Your task to perform on an android device: Open settings on Google Maps Image 0: 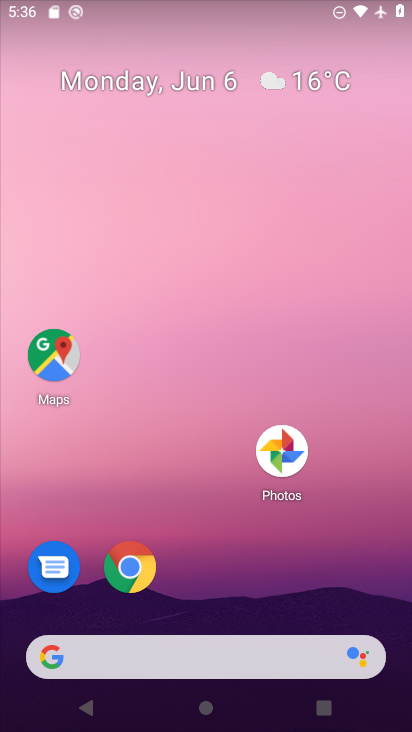
Step 0: click (194, 102)
Your task to perform on an android device: Open settings on Google Maps Image 1: 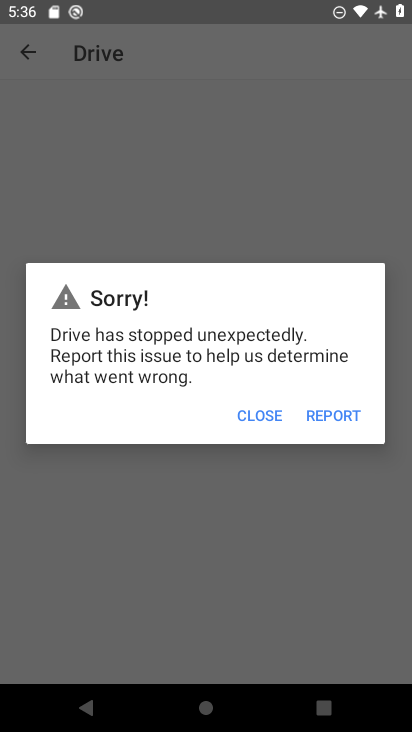
Step 1: click (258, 422)
Your task to perform on an android device: Open settings on Google Maps Image 2: 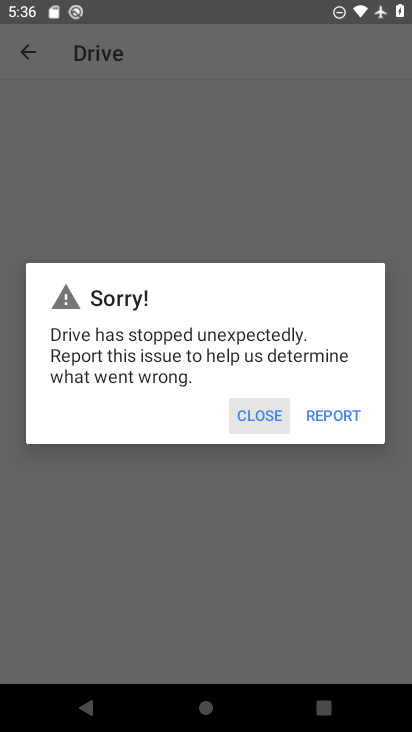
Step 2: click (259, 409)
Your task to perform on an android device: Open settings on Google Maps Image 3: 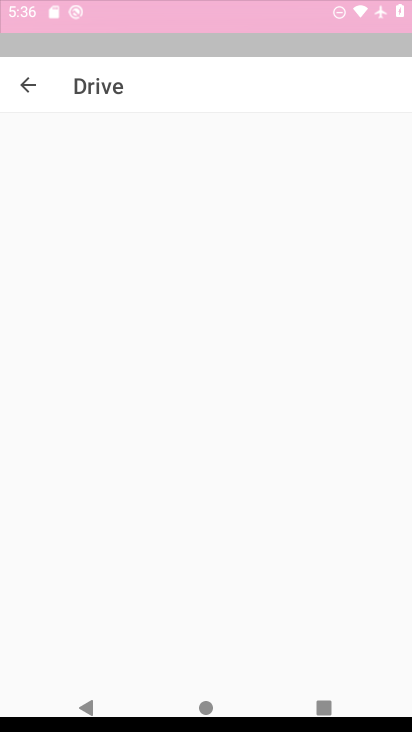
Step 3: click (261, 412)
Your task to perform on an android device: Open settings on Google Maps Image 4: 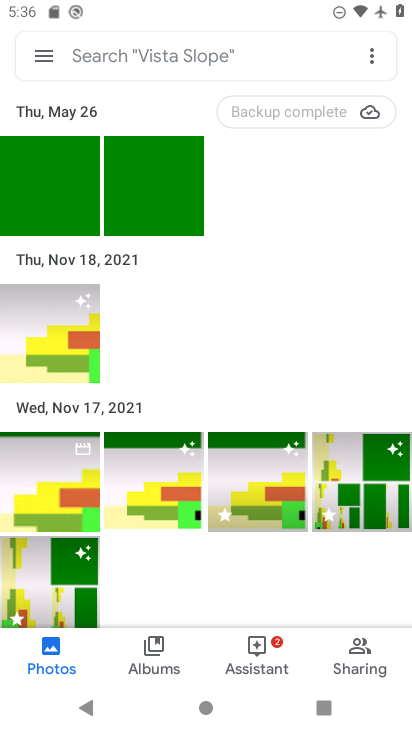
Step 4: drag from (240, 638) to (142, 23)
Your task to perform on an android device: Open settings on Google Maps Image 5: 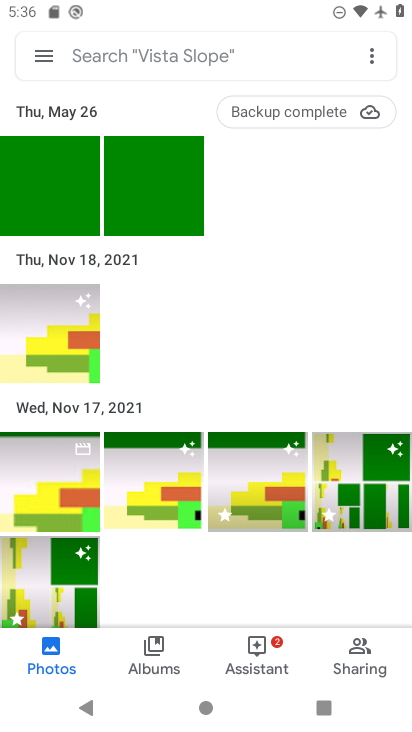
Step 5: press back button
Your task to perform on an android device: Open settings on Google Maps Image 6: 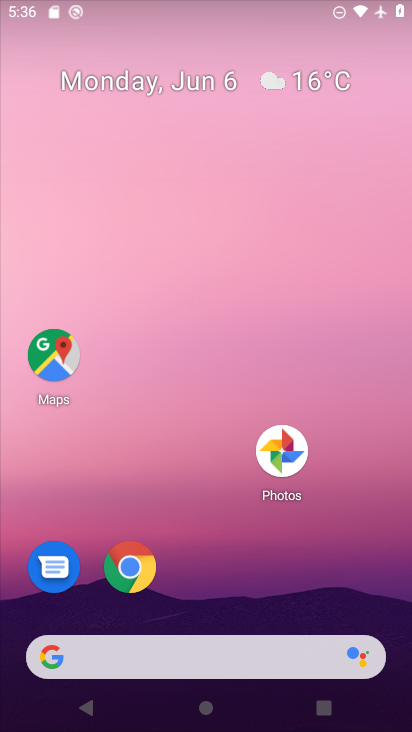
Step 6: drag from (259, 615) to (187, 104)
Your task to perform on an android device: Open settings on Google Maps Image 7: 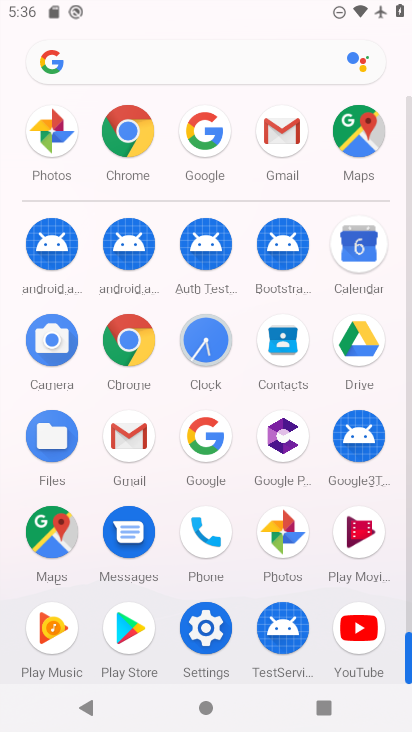
Step 7: click (62, 531)
Your task to perform on an android device: Open settings on Google Maps Image 8: 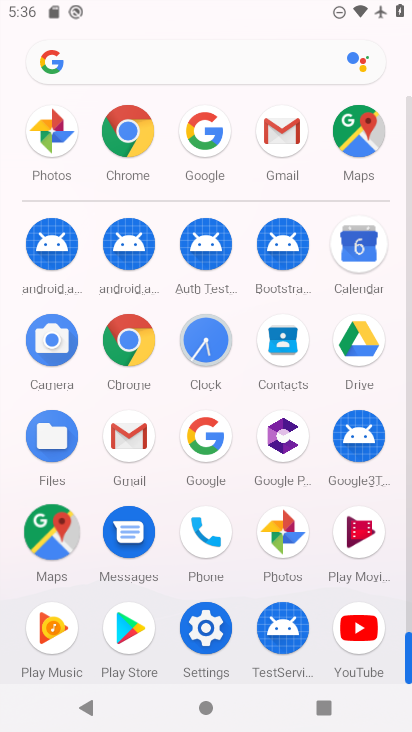
Step 8: click (64, 519)
Your task to perform on an android device: Open settings on Google Maps Image 9: 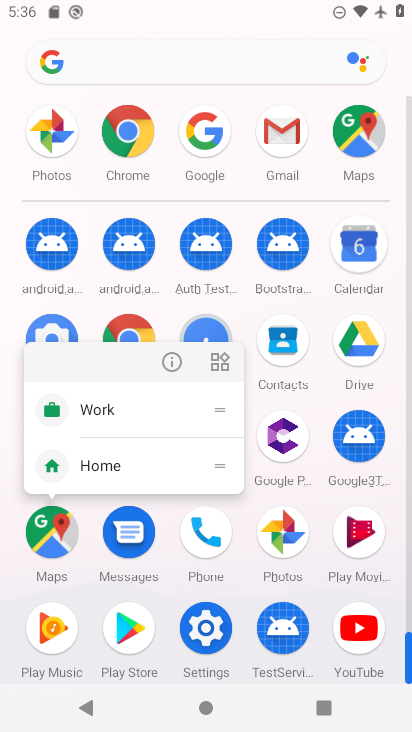
Step 9: click (68, 516)
Your task to perform on an android device: Open settings on Google Maps Image 10: 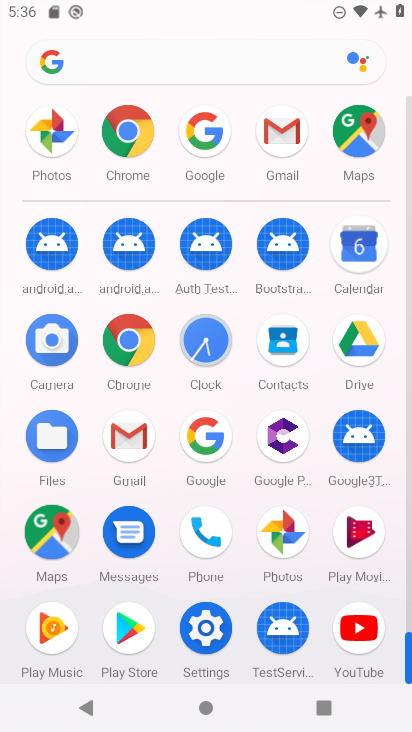
Step 10: click (72, 512)
Your task to perform on an android device: Open settings on Google Maps Image 11: 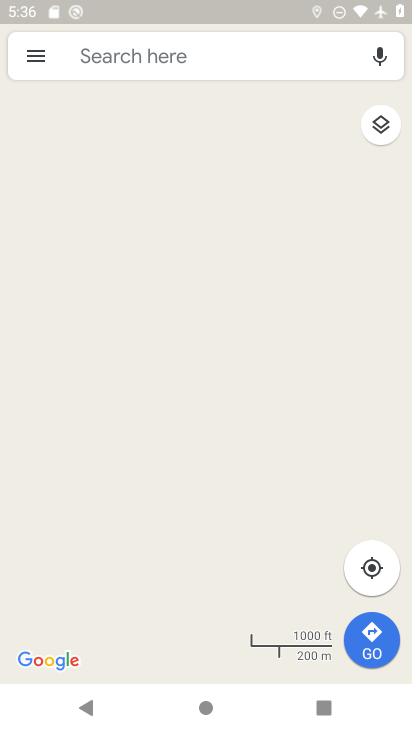
Step 11: click (71, 54)
Your task to perform on an android device: Open settings on Google Maps Image 12: 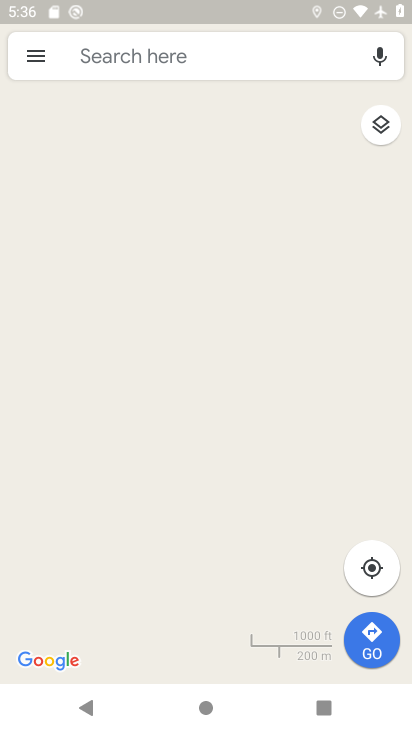
Step 12: click (83, 62)
Your task to perform on an android device: Open settings on Google Maps Image 13: 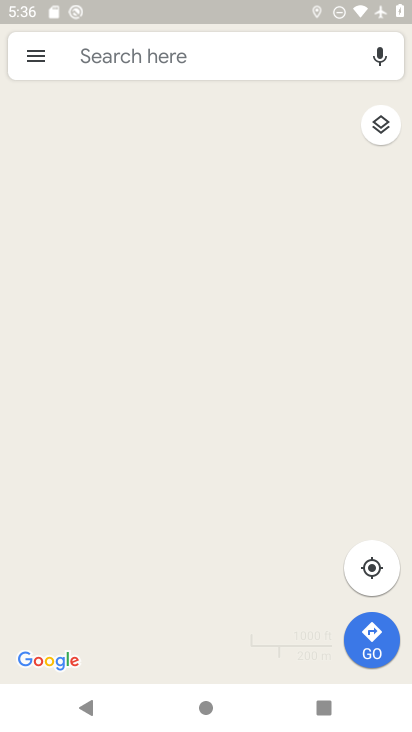
Step 13: click (85, 64)
Your task to perform on an android device: Open settings on Google Maps Image 14: 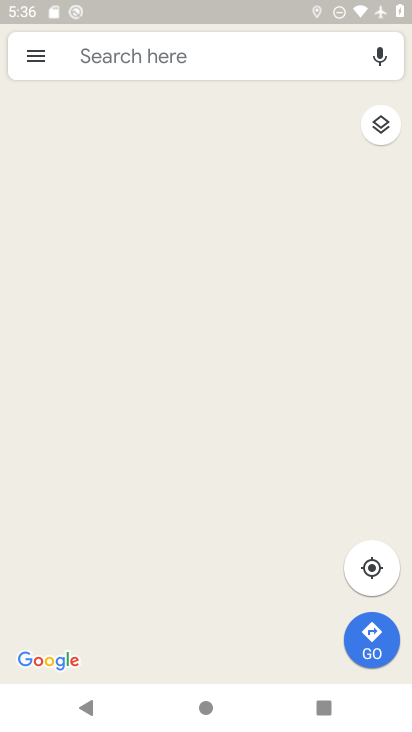
Step 14: click (86, 64)
Your task to perform on an android device: Open settings on Google Maps Image 15: 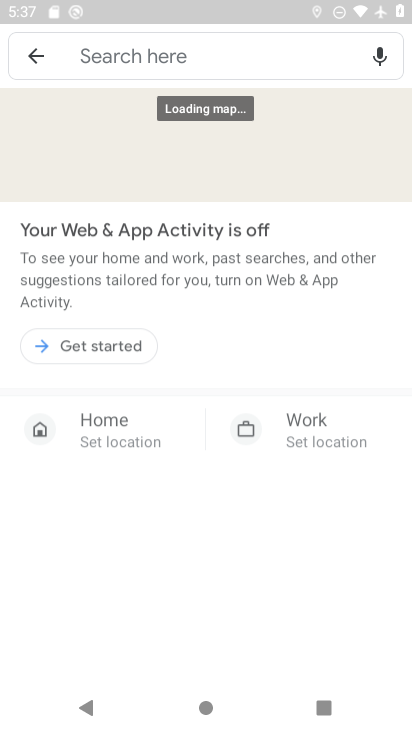
Step 15: click (85, 65)
Your task to perform on an android device: Open settings on Google Maps Image 16: 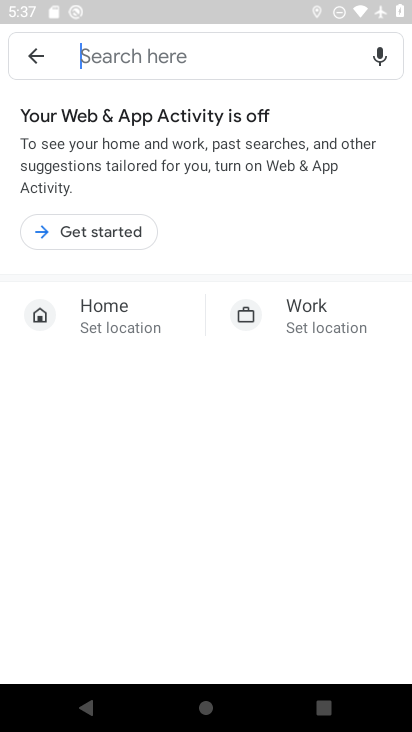
Step 16: click (41, 58)
Your task to perform on an android device: Open settings on Google Maps Image 17: 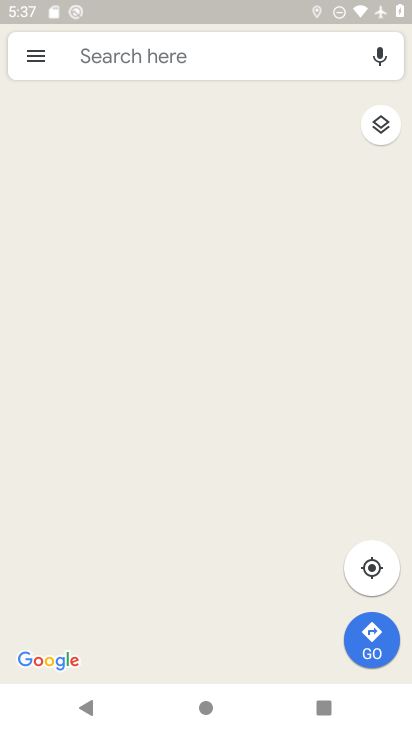
Step 17: click (32, 59)
Your task to perform on an android device: Open settings on Google Maps Image 18: 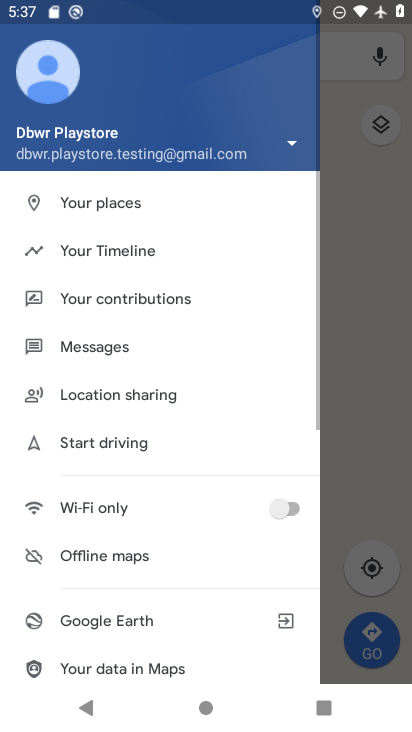
Step 18: click (33, 58)
Your task to perform on an android device: Open settings on Google Maps Image 19: 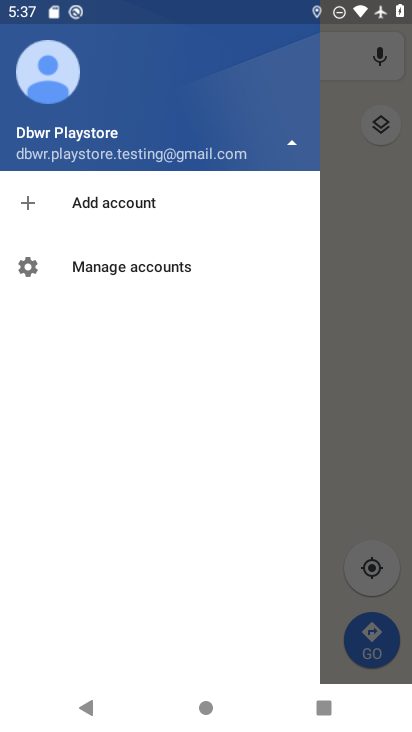
Step 19: click (119, 250)
Your task to perform on an android device: Open settings on Google Maps Image 20: 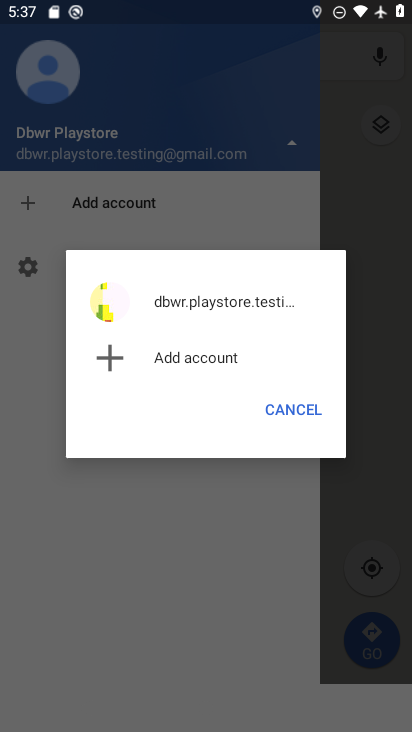
Step 20: click (286, 146)
Your task to perform on an android device: Open settings on Google Maps Image 21: 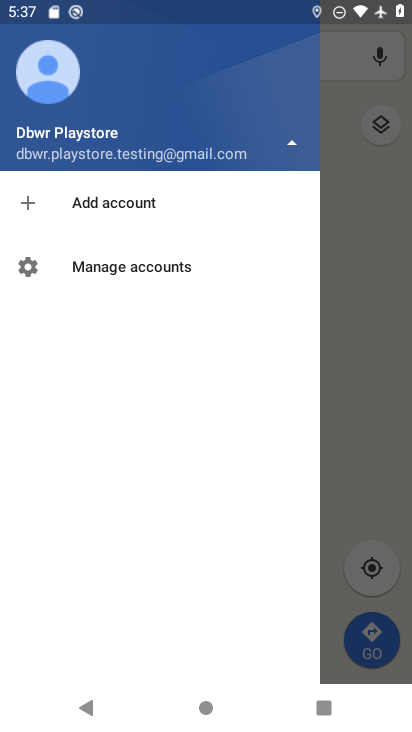
Step 21: click (292, 409)
Your task to perform on an android device: Open settings on Google Maps Image 22: 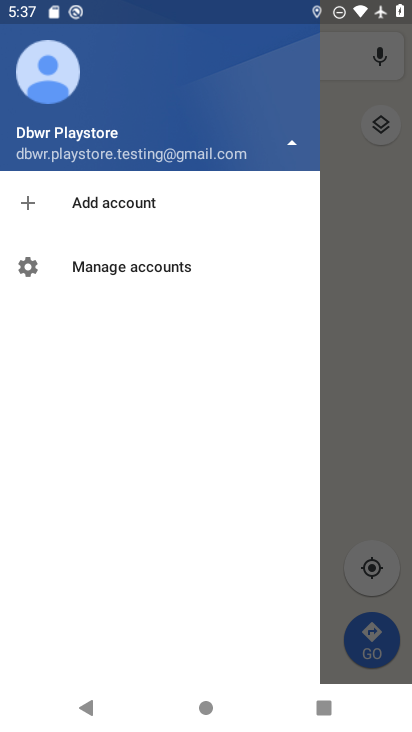
Step 22: click (297, 131)
Your task to perform on an android device: Open settings on Google Maps Image 23: 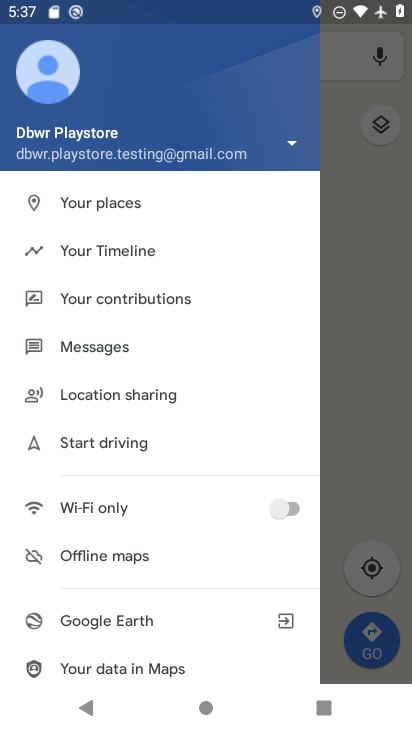
Step 23: click (291, 140)
Your task to perform on an android device: Open settings on Google Maps Image 24: 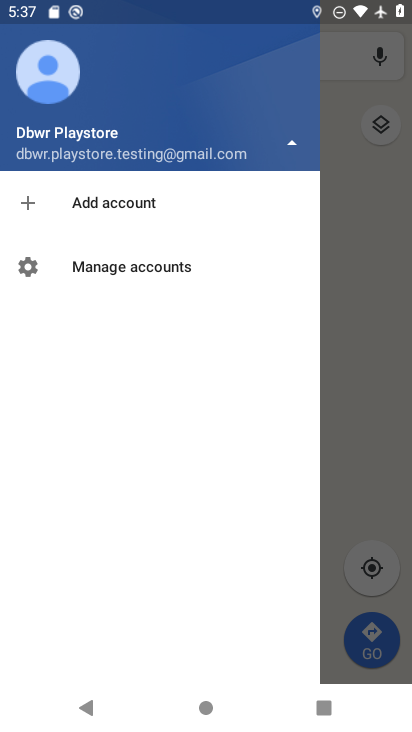
Step 24: click (119, 249)
Your task to perform on an android device: Open settings on Google Maps Image 25: 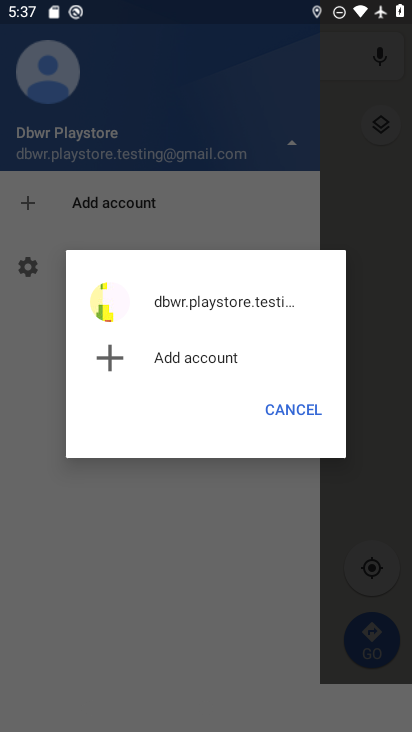
Step 25: click (298, 404)
Your task to perform on an android device: Open settings on Google Maps Image 26: 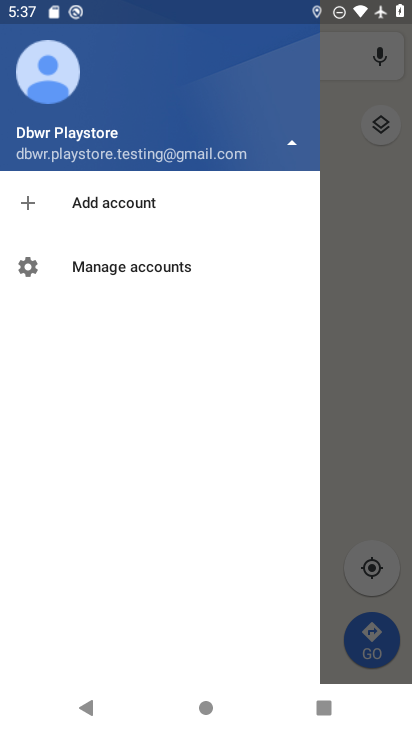
Step 26: click (288, 151)
Your task to perform on an android device: Open settings on Google Maps Image 27: 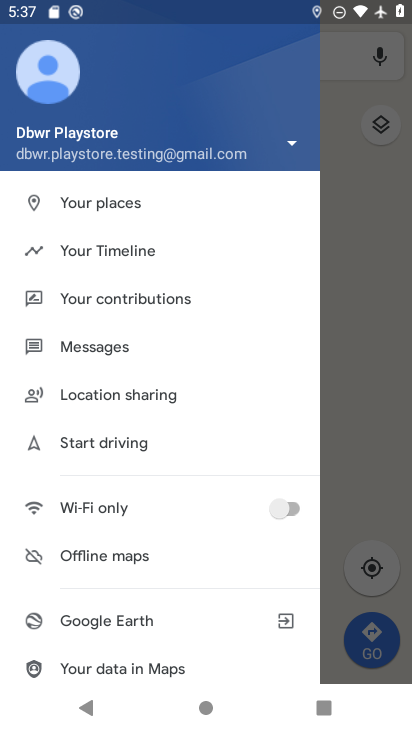
Step 27: click (94, 249)
Your task to perform on an android device: Open settings on Google Maps Image 28: 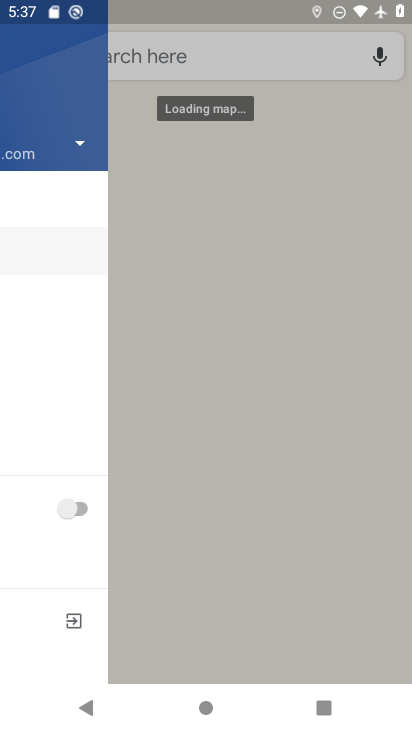
Step 28: click (98, 246)
Your task to perform on an android device: Open settings on Google Maps Image 29: 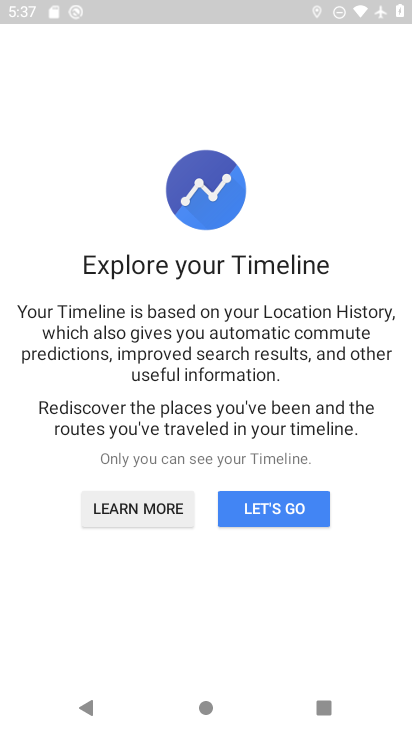
Step 29: click (276, 499)
Your task to perform on an android device: Open settings on Google Maps Image 30: 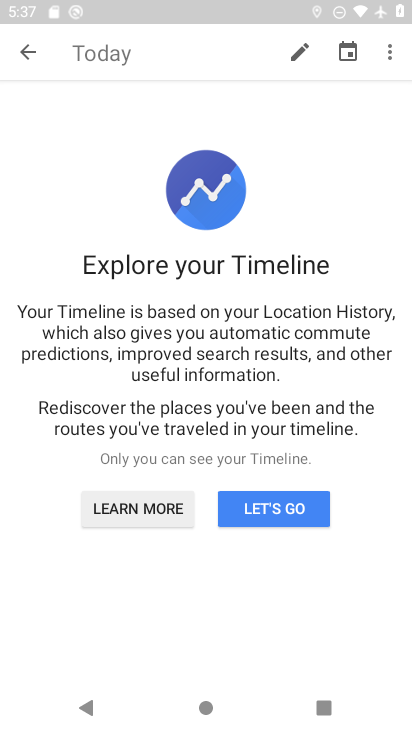
Step 30: task complete